Your task to perform on an android device: open a new tab in the chrome app Image 0: 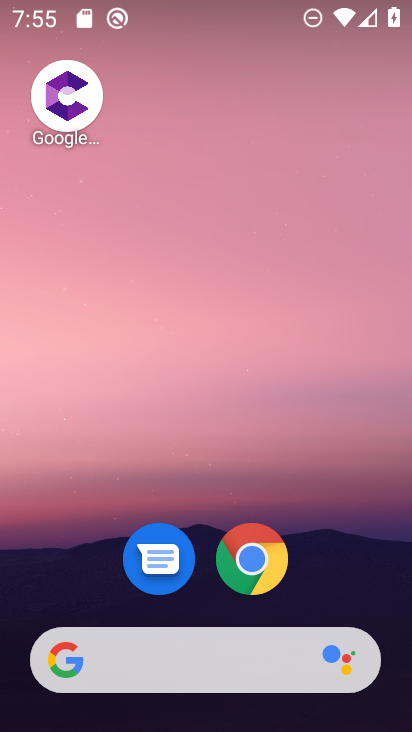
Step 0: click (240, 559)
Your task to perform on an android device: open a new tab in the chrome app Image 1: 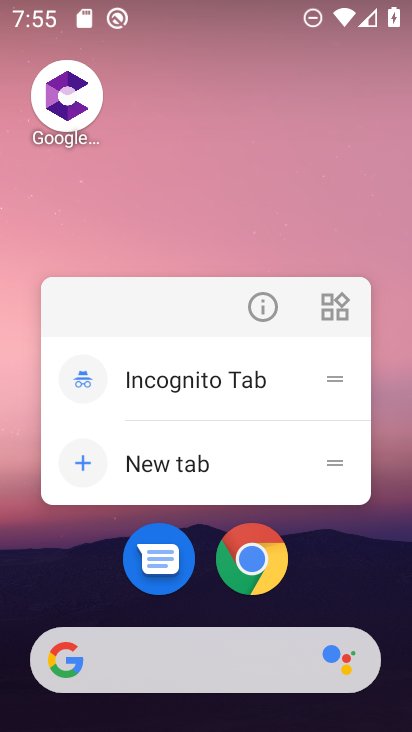
Step 1: click (241, 560)
Your task to perform on an android device: open a new tab in the chrome app Image 2: 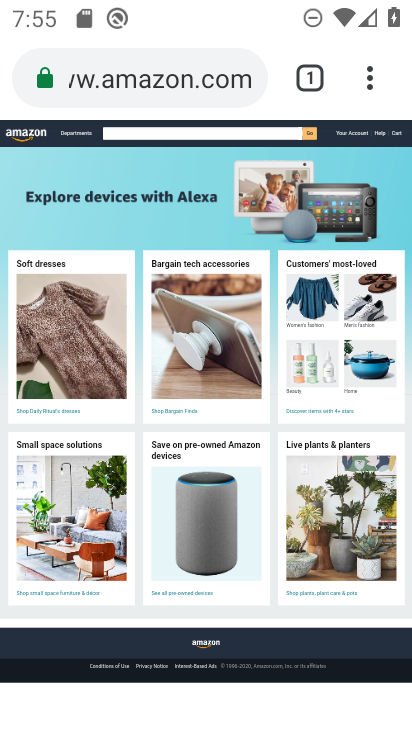
Step 2: click (317, 70)
Your task to perform on an android device: open a new tab in the chrome app Image 3: 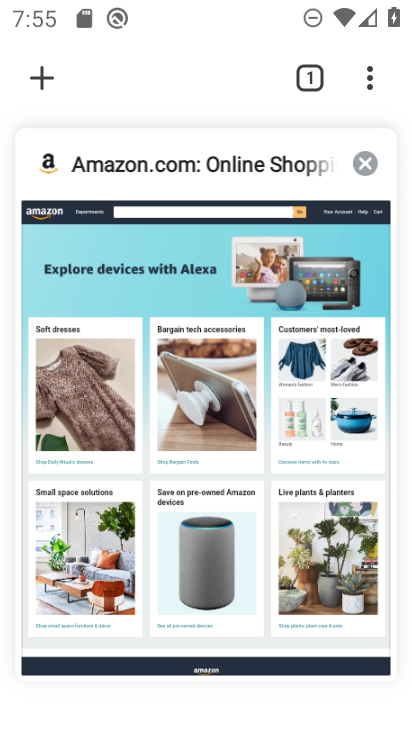
Step 3: click (55, 76)
Your task to perform on an android device: open a new tab in the chrome app Image 4: 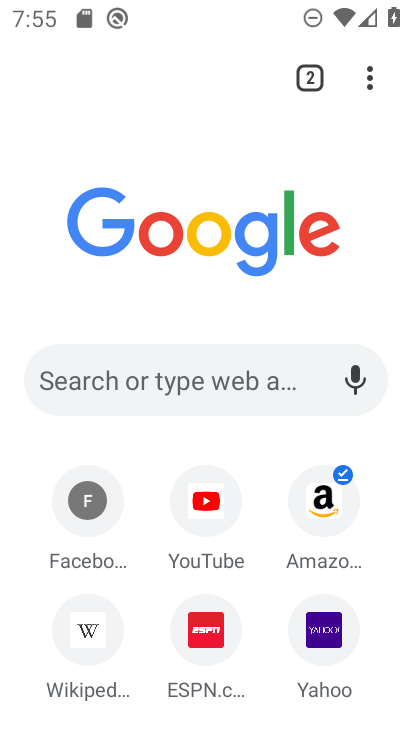
Step 4: click (315, 65)
Your task to perform on an android device: open a new tab in the chrome app Image 5: 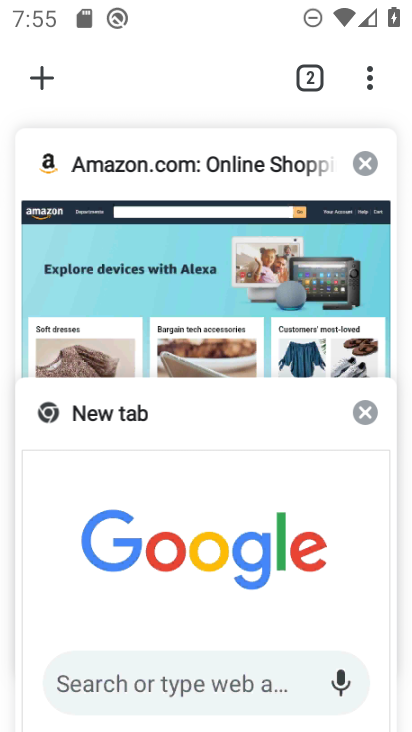
Step 5: click (38, 67)
Your task to perform on an android device: open a new tab in the chrome app Image 6: 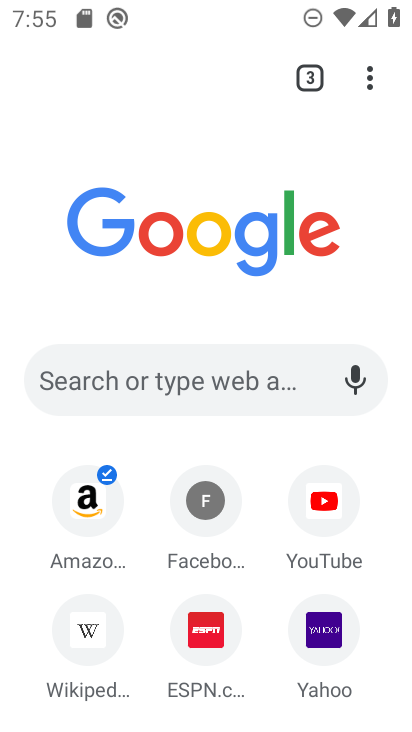
Step 6: task complete